Your task to perform on an android device: Open the calendar app, open the side menu, and click the "Day" option Image 0: 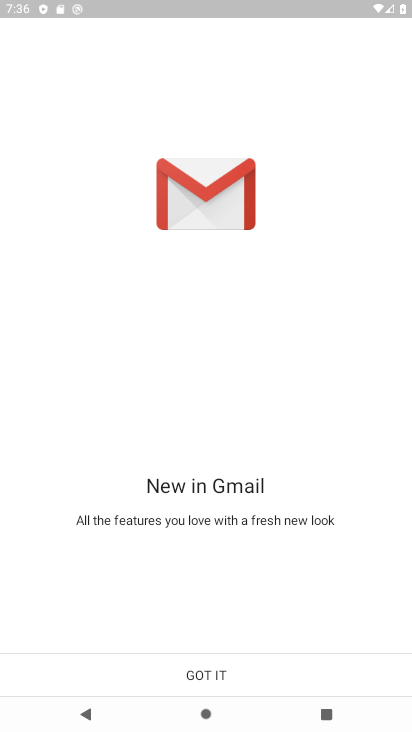
Step 0: press home button
Your task to perform on an android device: Open the calendar app, open the side menu, and click the "Day" option Image 1: 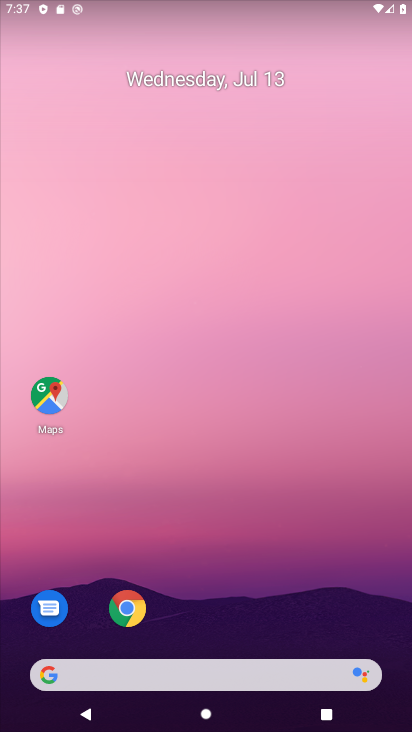
Step 1: drag from (203, 643) to (198, 95)
Your task to perform on an android device: Open the calendar app, open the side menu, and click the "Day" option Image 2: 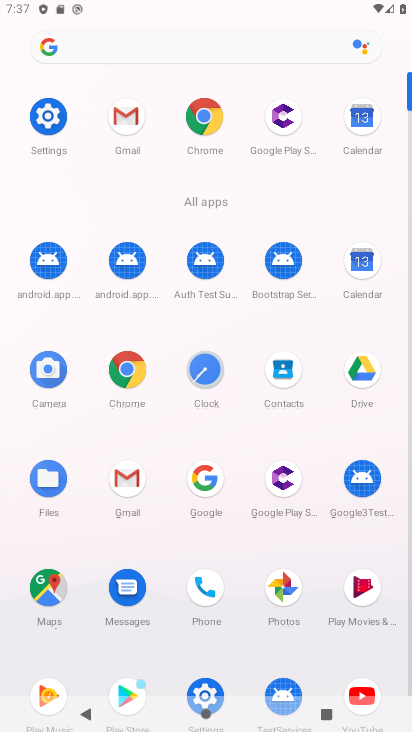
Step 2: click (350, 267)
Your task to perform on an android device: Open the calendar app, open the side menu, and click the "Day" option Image 3: 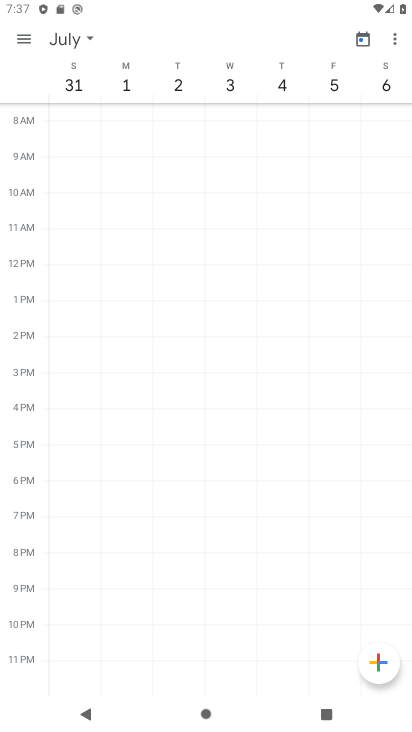
Step 3: click (29, 45)
Your task to perform on an android device: Open the calendar app, open the side menu, and click the "Day" option Image 4: 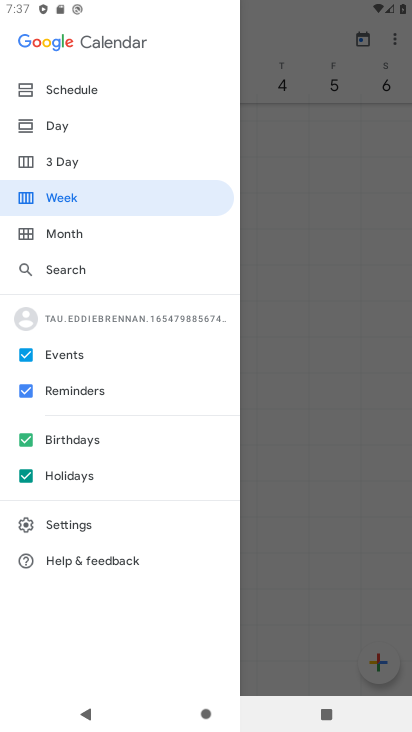
Step 4: click (30, 123)
Your task to perform on an android device: Open the calendar app, open the side menu, and click the "Day" option Image 5: 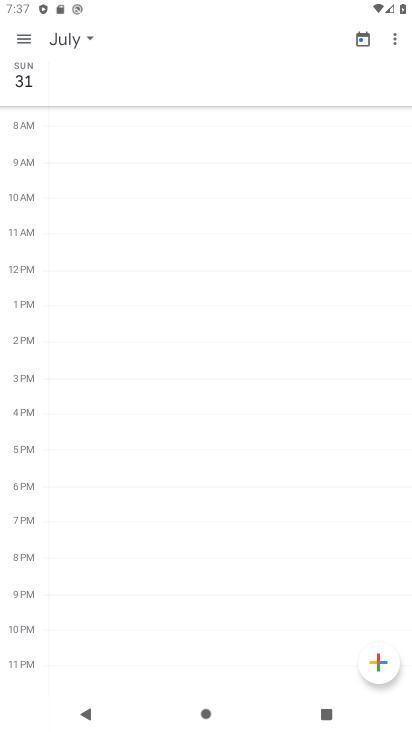
Step 5: task complete